Your task to perform on an android device: Open the map Image 0: 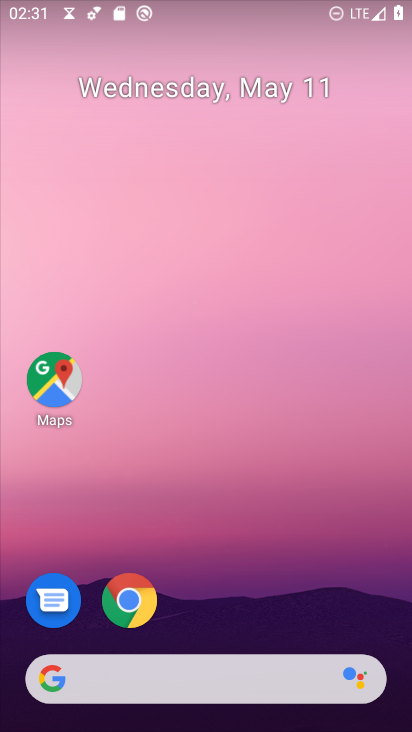
Step 0: drag from (238, 593) to (233, 234)
Your task to perform on an android device: Open the map Image 1: 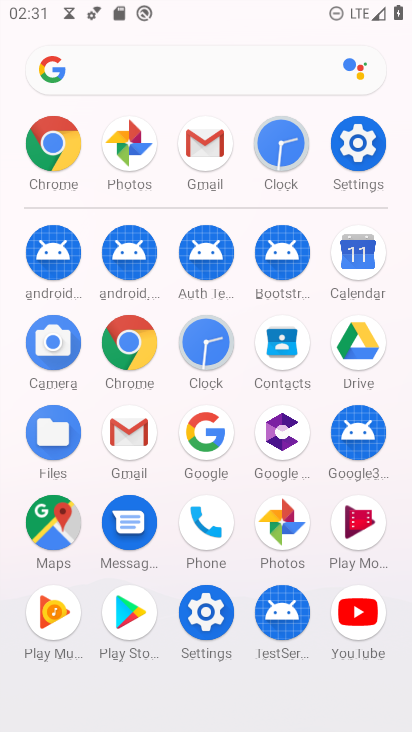
Step 1: click (49, 520)
Your task to perform on an android device: Open the map Image 2: 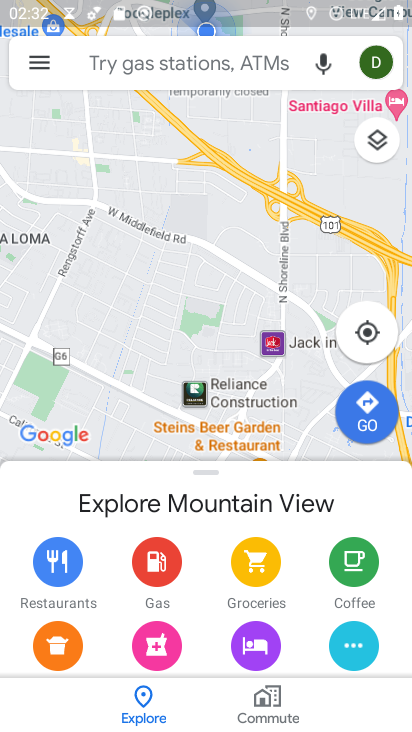
Step 2: task complete